Your task to perform on an android device: open device folders in google photos Image 0: 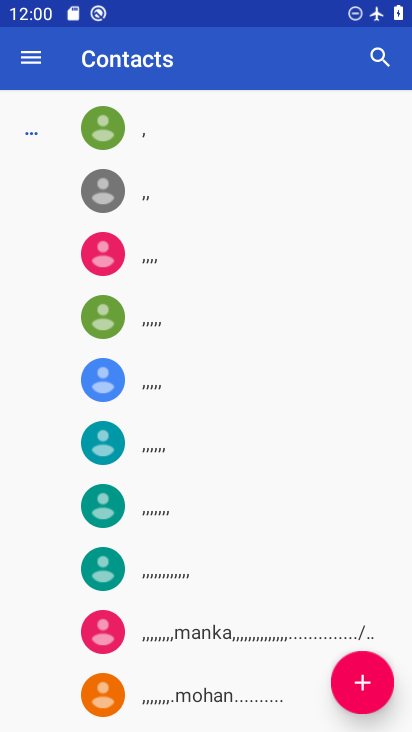
Step 0: press home button
Your task to perform on an android device: open device folders in google photos Image 1: 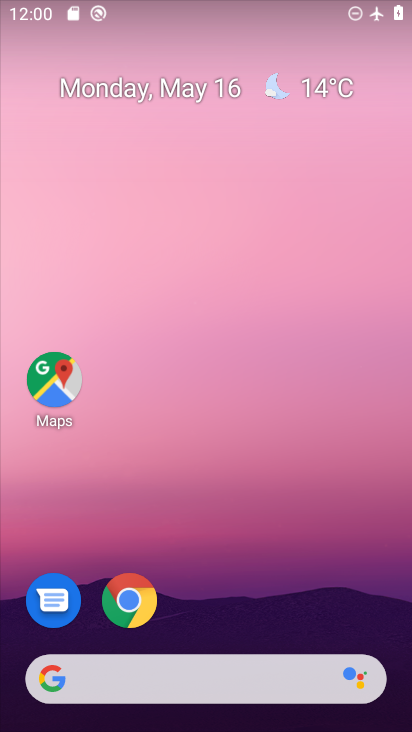
Step 1: drag from (395, 648) to (330, 136)
Your task to perform on an android device: open device folders in google photos Image 2: 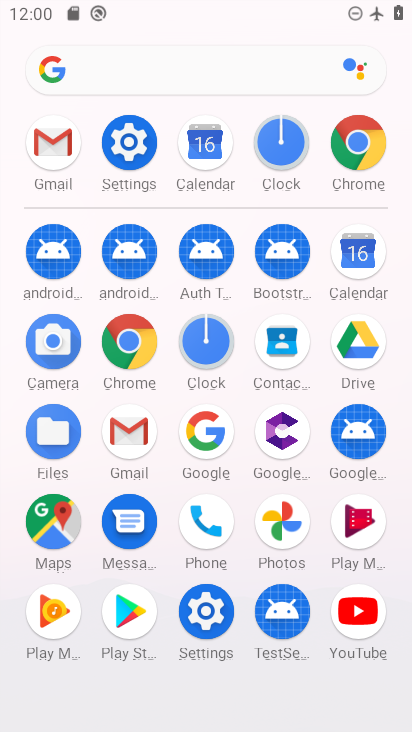
Step 2: click (284, 518)
Your task to perform on an android device: open device folders in google photos Image 3: 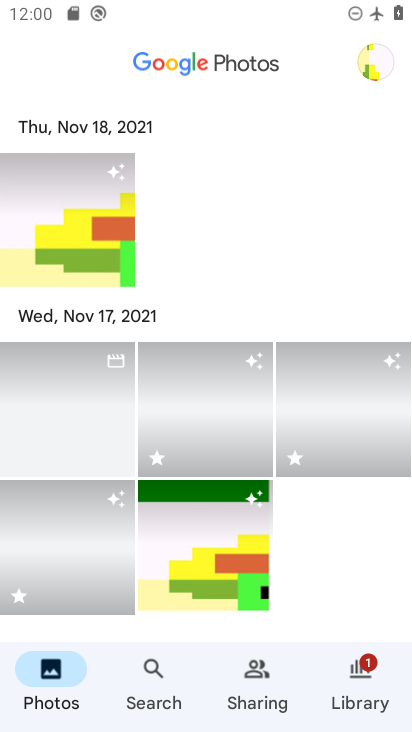
Step 3: click (371, 61)
Your task to perform on an android device: open device folders in google photos Image 4: 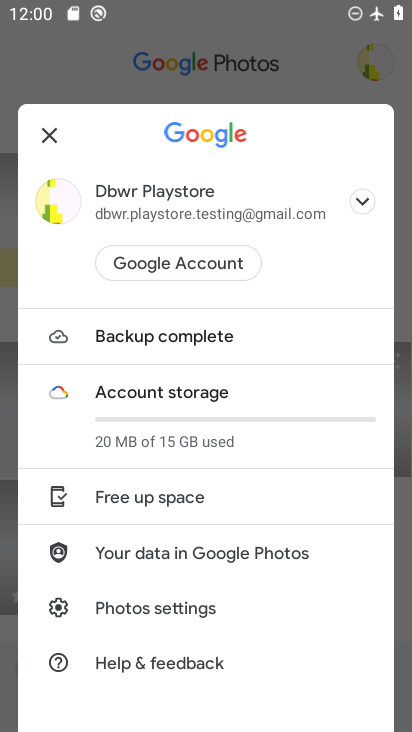
Step 4: task complete